Your task to perform on an android device: change the clock display to analog Image 0: 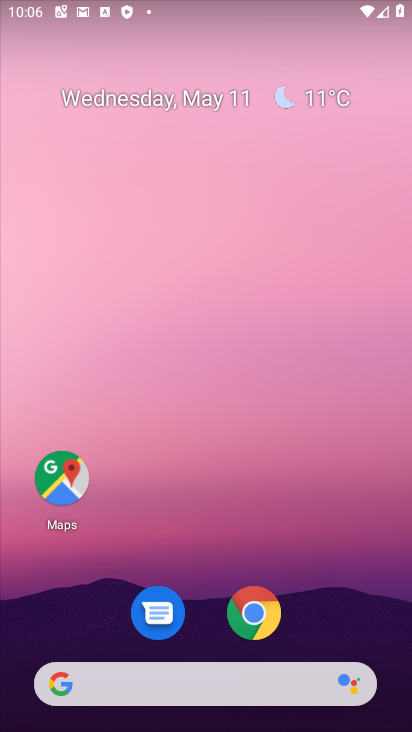
Step 0: drag from (239, 524) to (269, 161)
Your task to perform on an android device: change the clock display to analog Image 1: 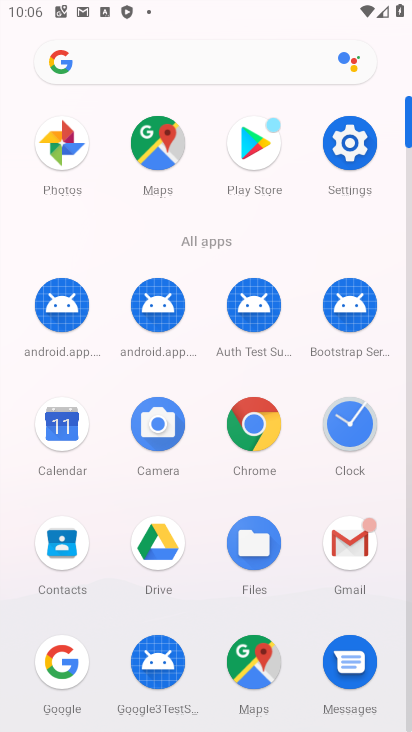
Step 1: click (359, 447)
Your task to perform on an android device: change the clock display to analog Image 2: 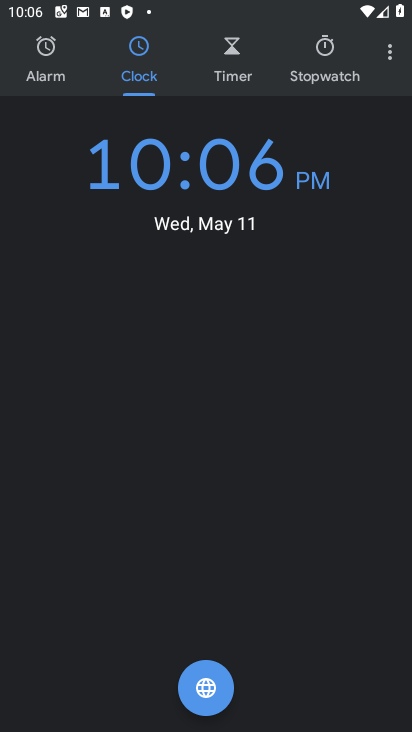
Step 2: click (396, 57)
Your task to perform on an android device: change the clock display to analog Image 3: 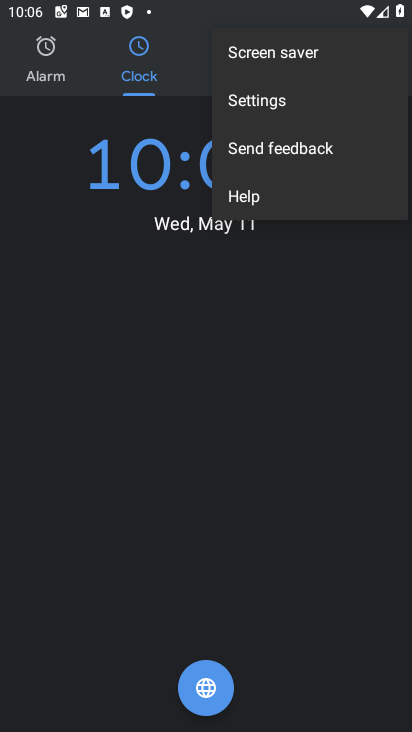
Step 3: click (309, 111)
Your task to perform on an android device: change the clock display to analog Image 4: 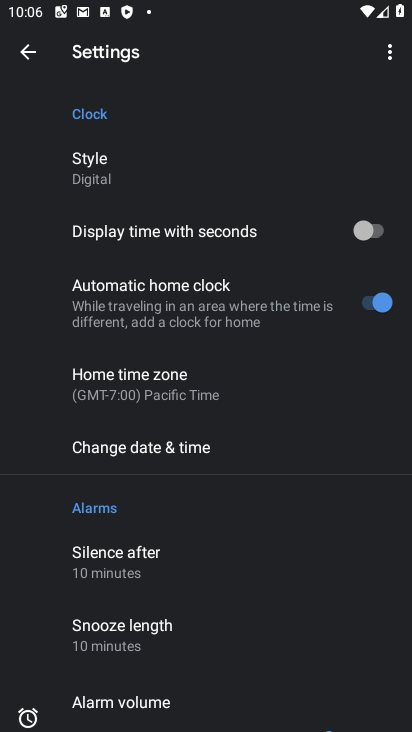
Step 4: click (166, 185)
Your task to perform on an android device: change the clock display to analog Image 5: 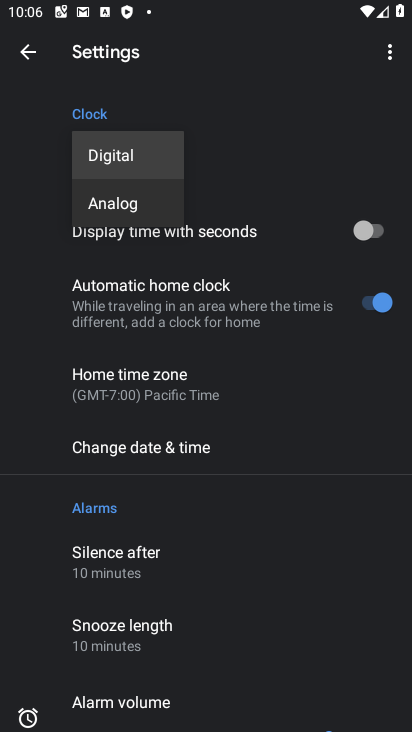
Step 5: click (150, 208)
Your task to perform on an android device: change the clock display to analog Image 6: 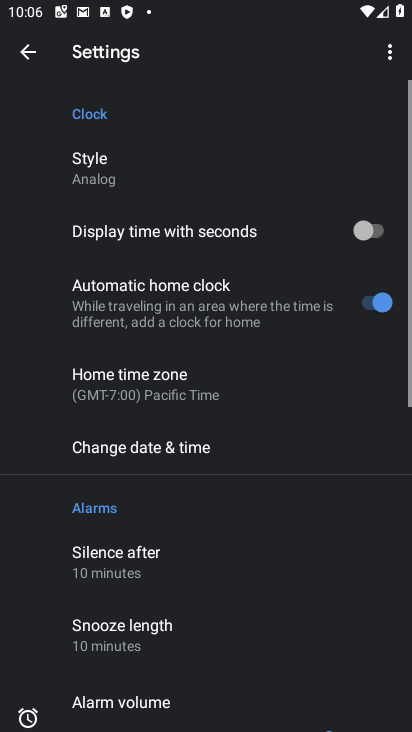
Step 6: task complete